Your task to perform on an android device: allow cookies in the chrome app Image 0: 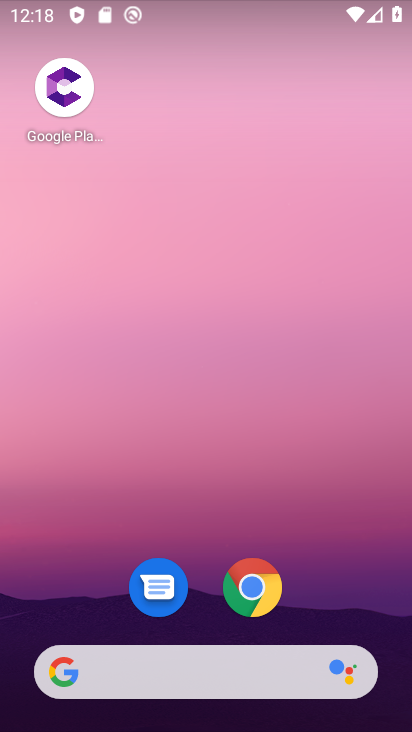
Step 0: click (252, 591)
Your task to perform on an android device: allow cookies in the chrome app Image 1: 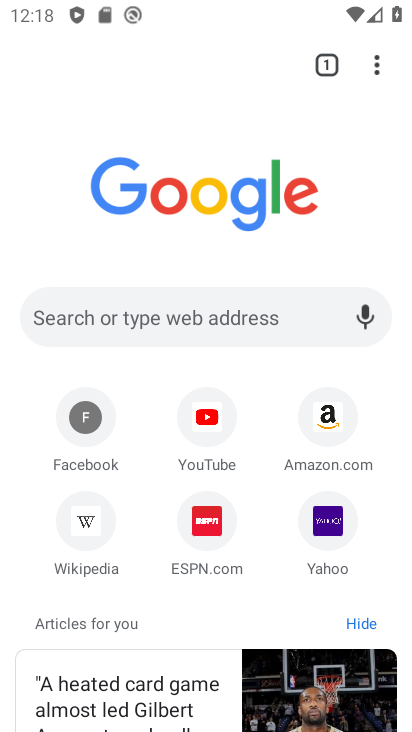
Step 1: click (375, 69)
Your task to perform on an android device: allow cookies in the chrome app Image 2: 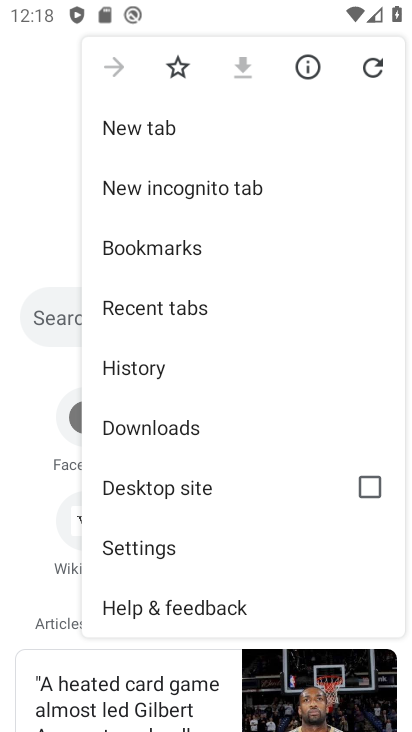
Step 2: click (145, 546)
Your task to perform on an android device: allow cookies in the chrome app Image 3: 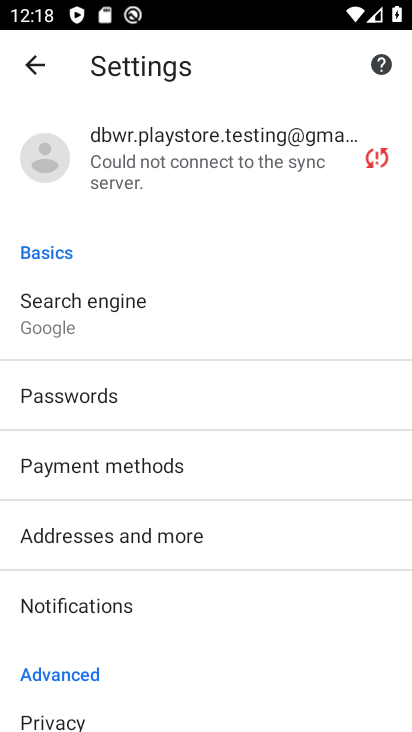
Step 3: drag from (98, 662) to (115, 331)
Your task to perform on an android device: allow cookies in the chrome app Image 4: 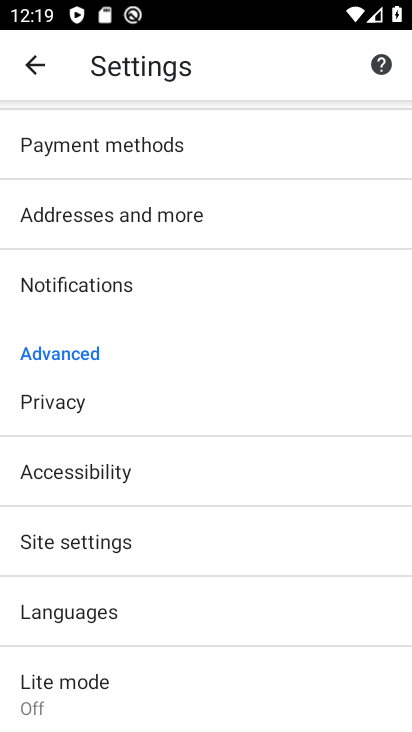
Step 4: drag from (116, 661) to (122, 433)
Your task to perform on an android device: allow cookies in the chrome app Image 5: 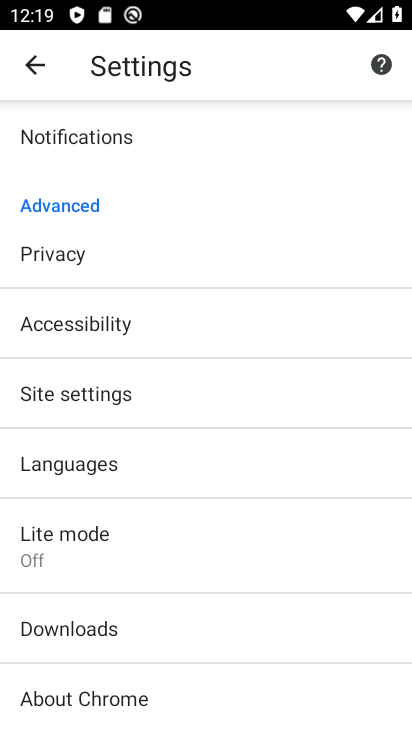
Step 5: click (102, 397)
Your task to perform on an android device: allow cookies in the chrome app Image 6: 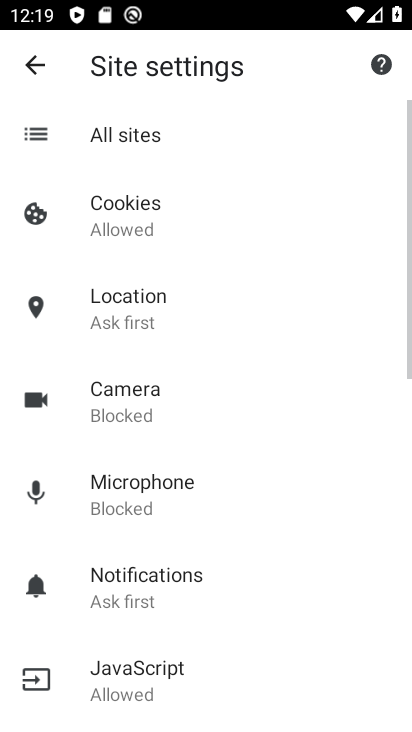
Step 6: click (128, 221)
Your task to perform on an android device: allow cookies in the chrome app Image 7: 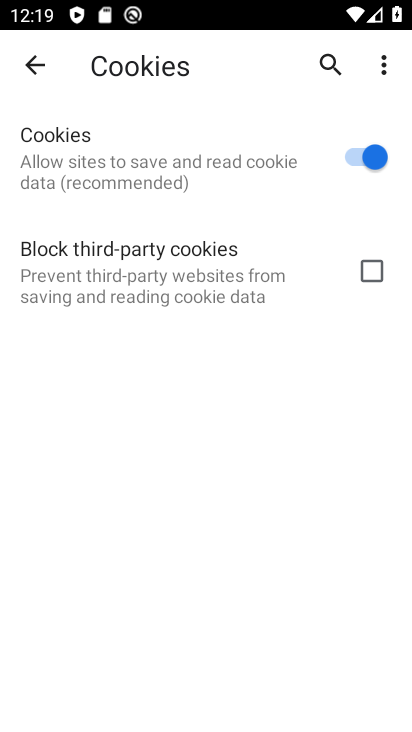
Step 7: task complete